Your task to perform on an android device: turn off picture-in-picture Image 0: 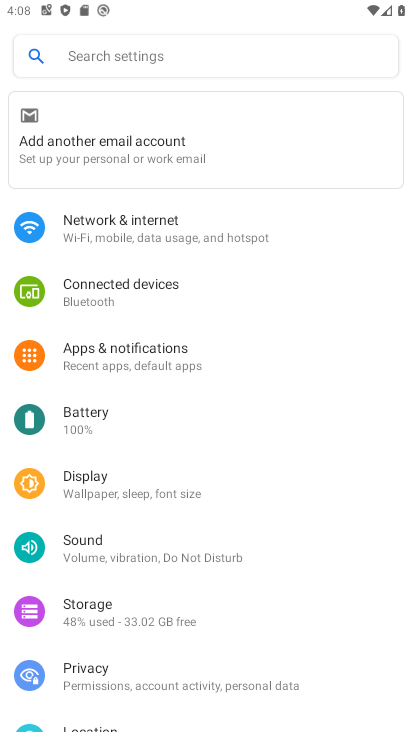
Step 0: drag from (265, 663) to (303, 203)
Your task to perform on an android device: turn off picture-in-picture Image 1: 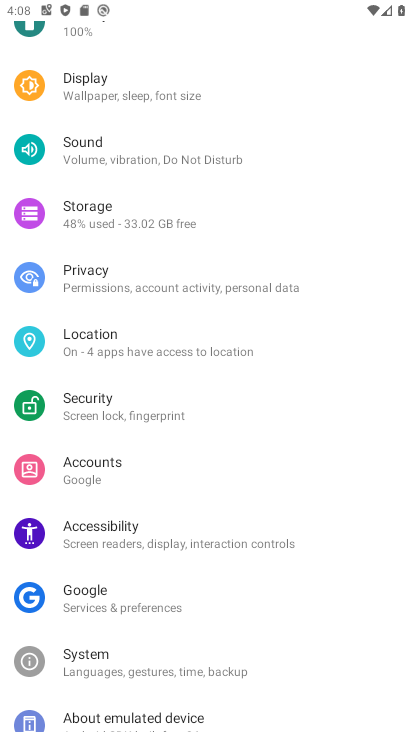
Step 1: drag from (180, 114) to (174, 423)
Your task to perform on an android device: turn off picture-in-picture Image 2: 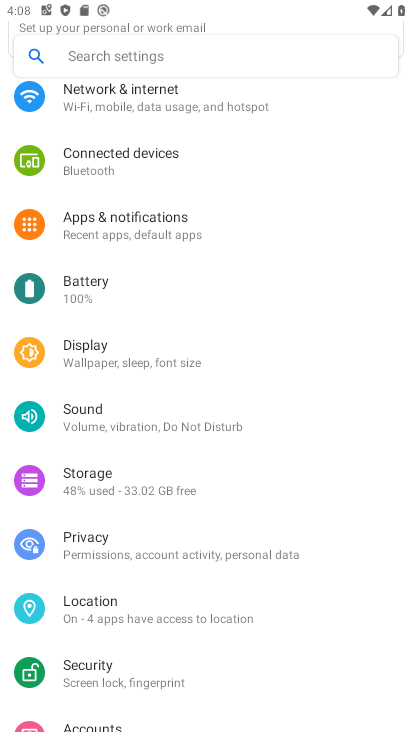
Step 2: click (168, 220)
Your task to perform on an android device: turn off picture-in-picture Image 3: 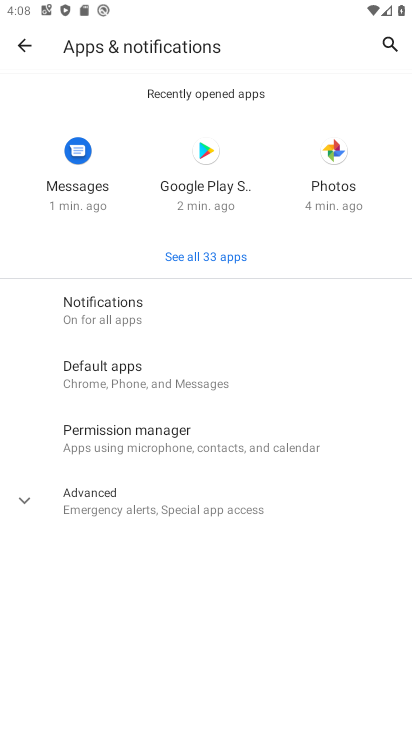
Step 3: click (120, 495)
Your task to perform on an android device: turn off picture-in-picture Image 4: 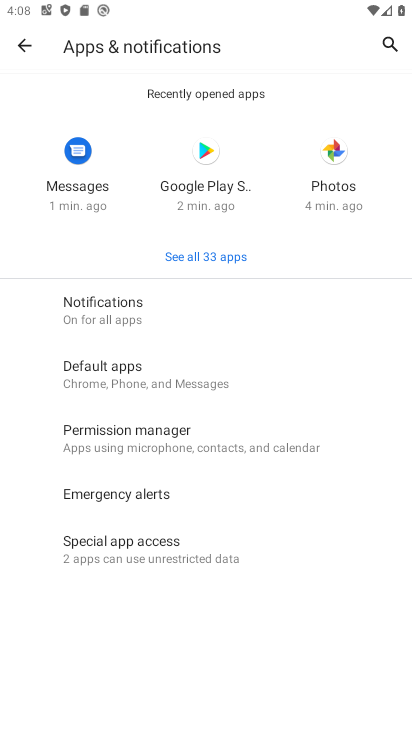
Step 4: click (145, 560)
Your task to perform on an android device: turn off picture-in-picture Image 5: 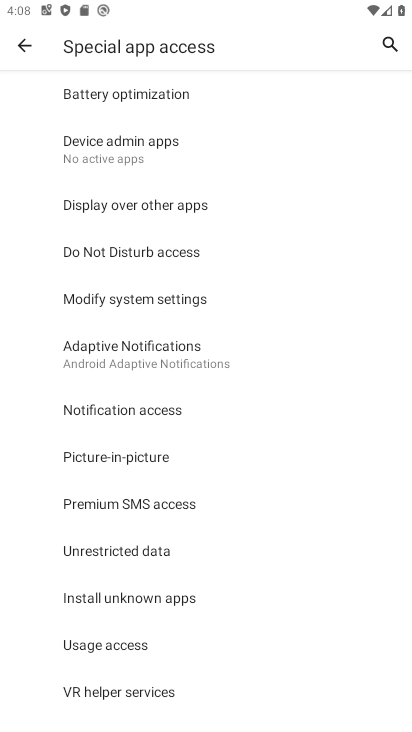
Step 5: click (129, 453)
Your task to perform on an android device: turn off picture-in-picture Image 6: 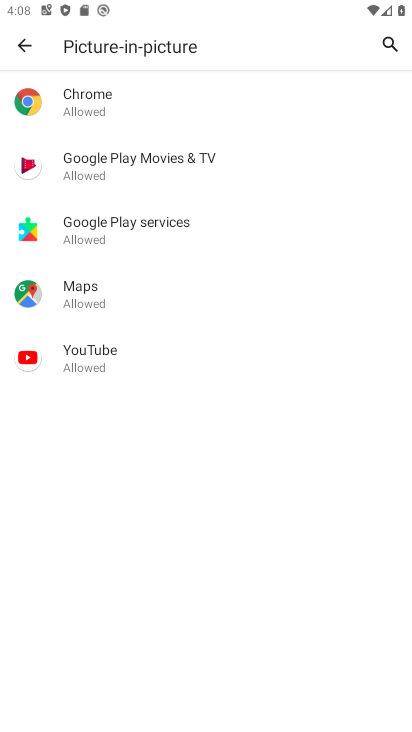
Step 6: click (105, 105)
Your task to perform on an android device: turn off picture-in-picture Image 7: 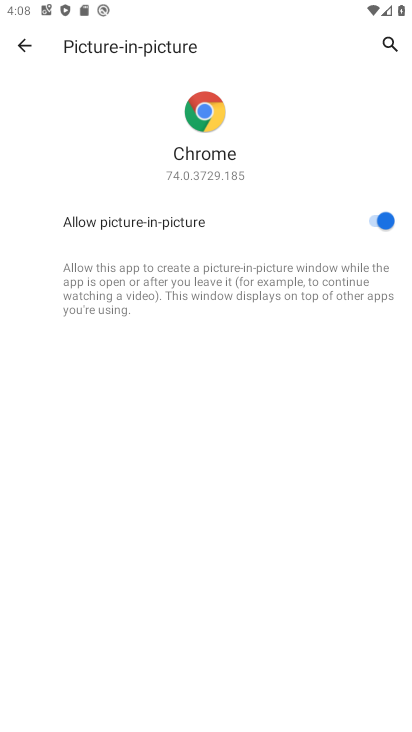
Step 7: click (373, 218)
Your task to perform on an android device: turn off picture-in-picture Image 8: 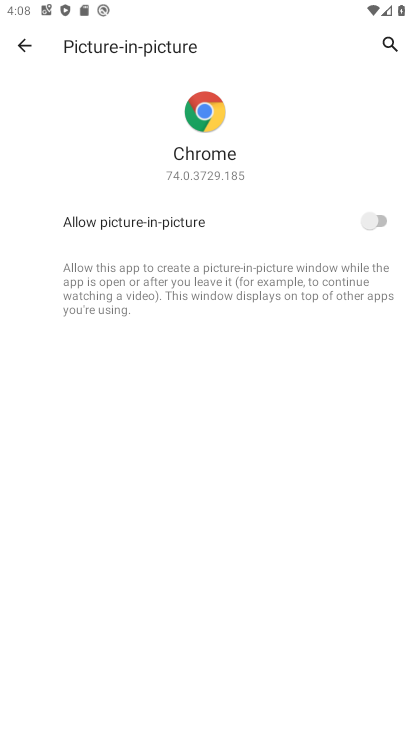
Step 8: press back button
Your task to perform on an android device: turn off picture-in-picture Image 9: 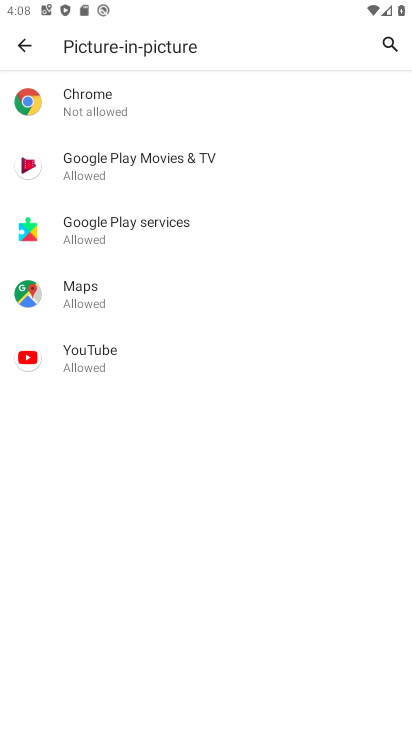
Step 9: click (156, 158)
Your task to perform on an android device: turn off picture-in-picture Image 10: 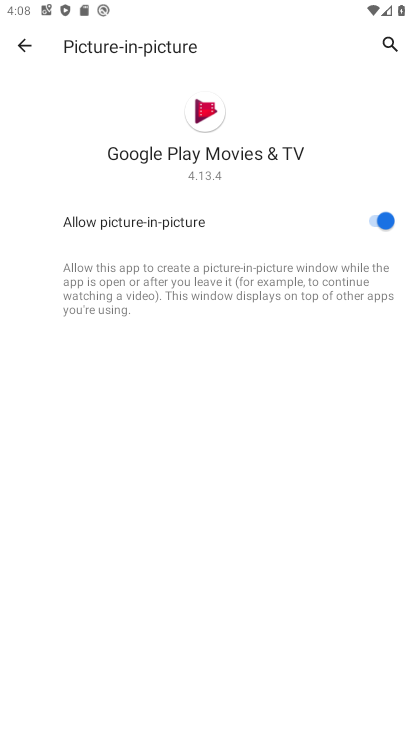
Step 10: click (375, 225)
Your task to perform on an android device: turn off picture-in-picture Image 11: 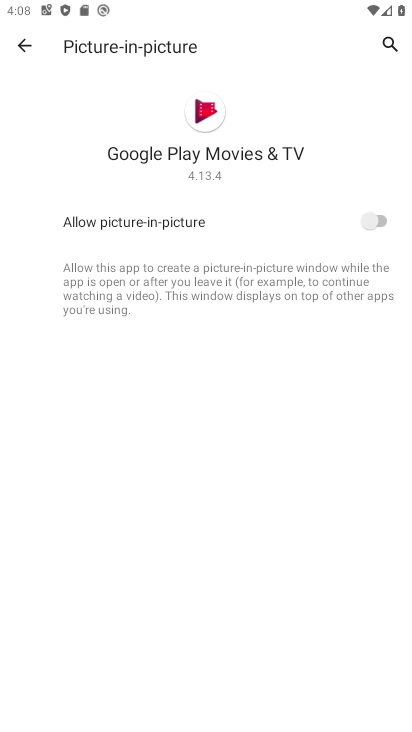
Step 11: press back button
Your task to perform on an android device: turn off picture-in-picture Image 12: 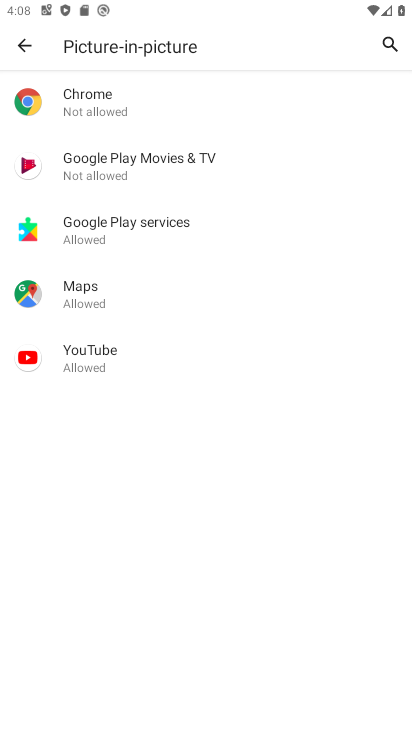
Step 12: click (142, 236)
Your task to perform on an android device: turn off picture-in-picture Image 13: 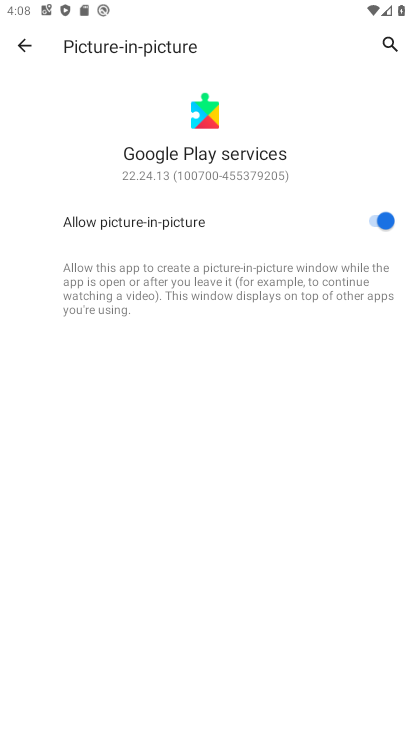
Step 13: click (374, 227)
Your task to perform on an android device: turn off picture-in-picture Image 14: 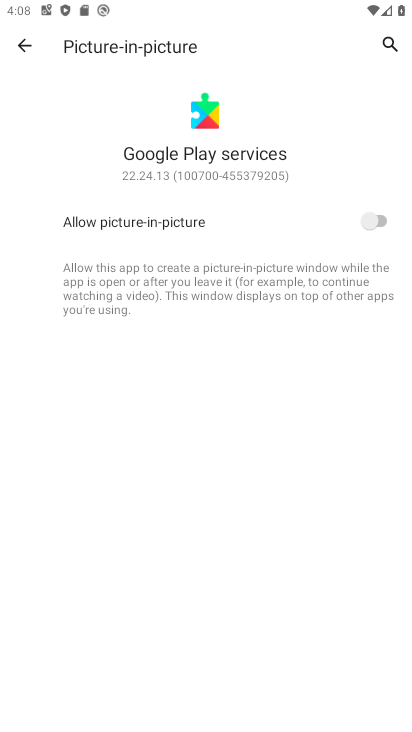
Step 14: press back button
Your task to perform on an android device: turn off picture-in-picture Image 15: 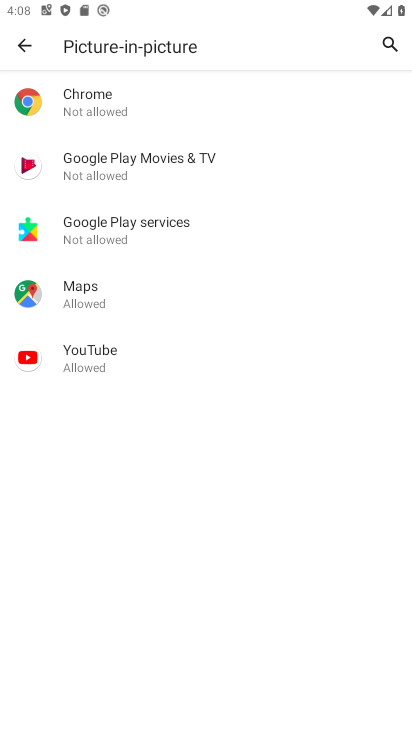
Step 15: click (124, 289)
Your task to perform on an android device: turn off picture-in-picture Image 16: 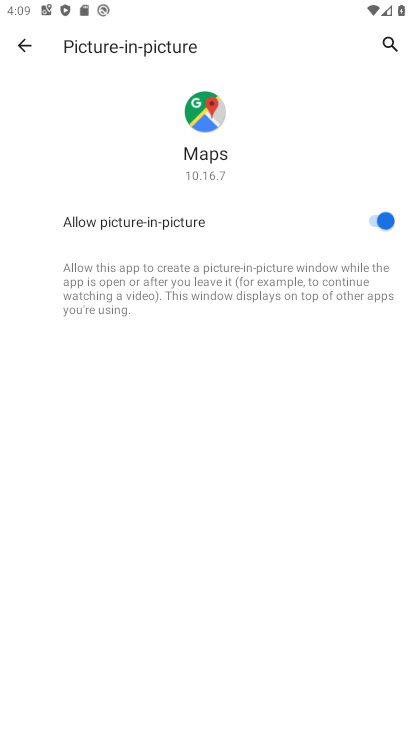
Step 16: click (376, 219)
Your task to perform on an android device: turn off picture-in-picture Image 17: 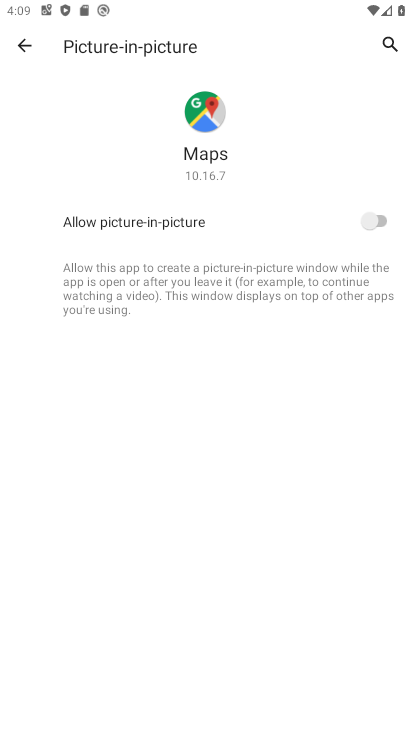
Step 17: press back button
Your task to perform on an android device: turn off picture-in-picture Image 18: 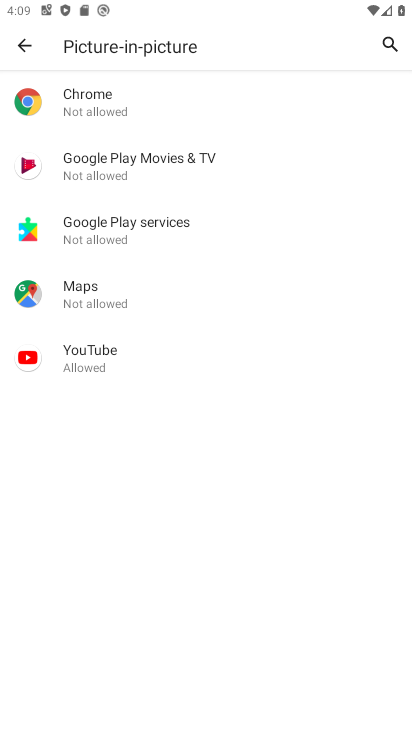
Step 18: click (125, 353)
Your task to perform on an android device: turn off picture-in-picture Image 19: 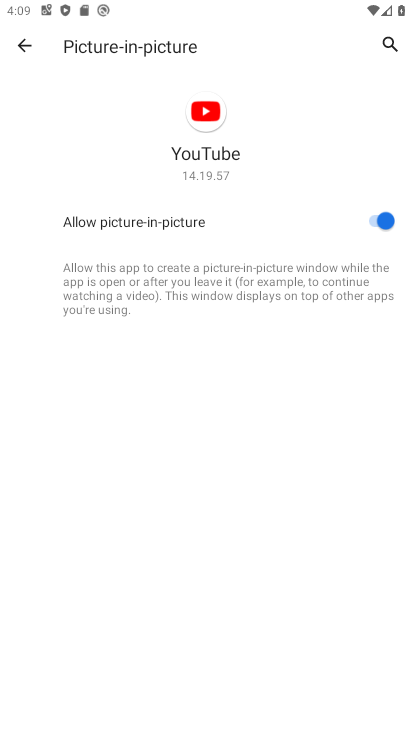
Step 19: click (375, 223)
Your task to perform on an android device: turn off picture-in-picture Image 20: 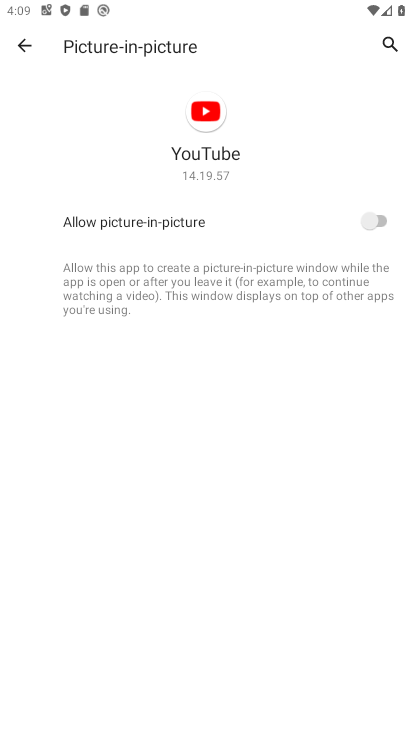
Step 20: task complete